Your task to perform on an android device: Show me the alarms in the clock app Image 0: 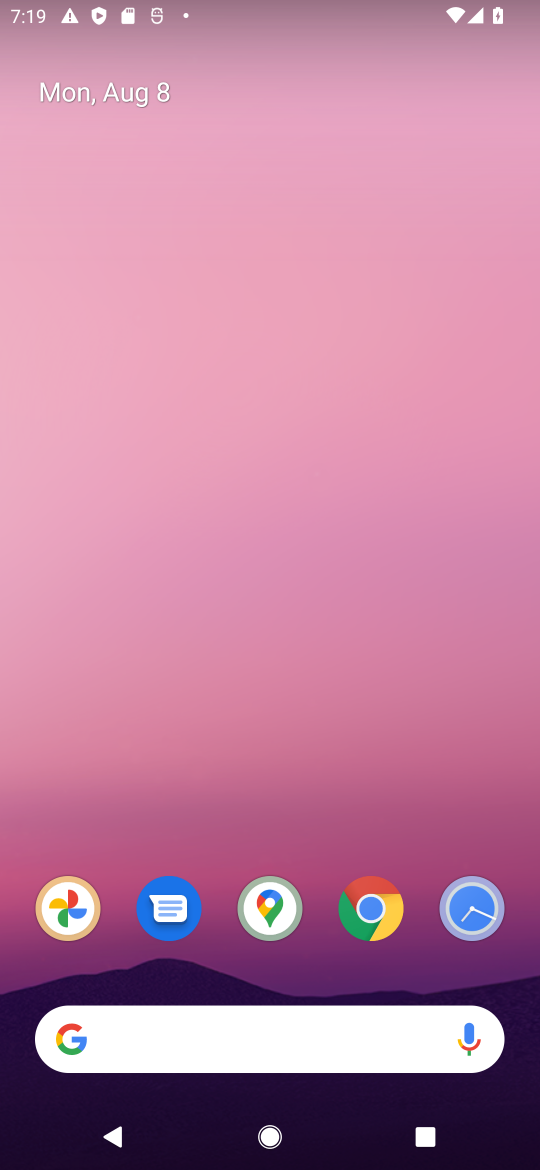
Step 0: click (461, 891)
Your task to perform on an android device: Show me the alarms in the clock app Image 1: 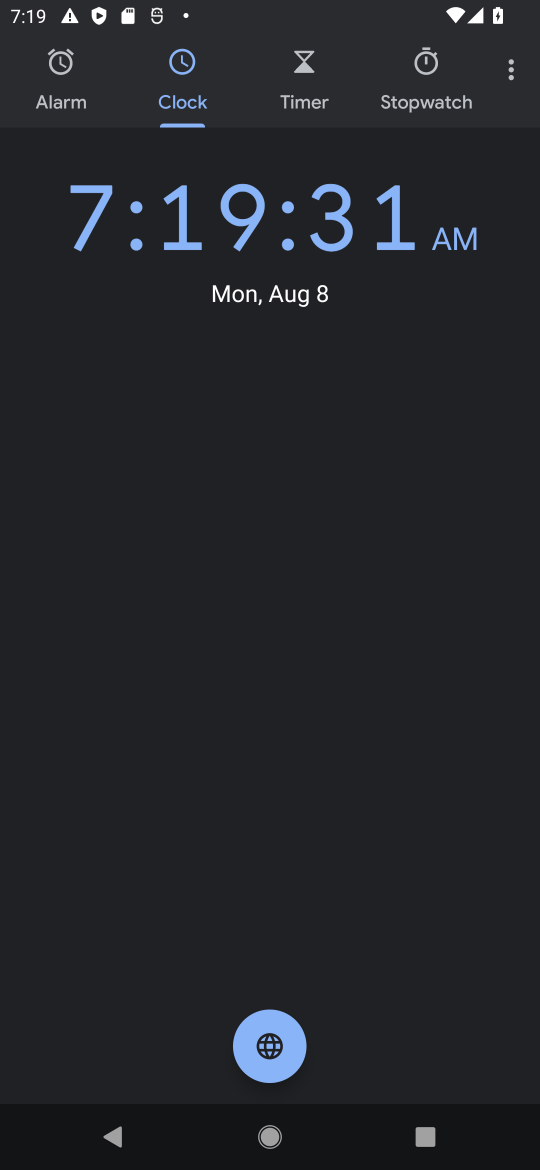
Step 1: click (38, 56)
Your task to perform on an android device: Show me the alarms in the clock app Image 2: 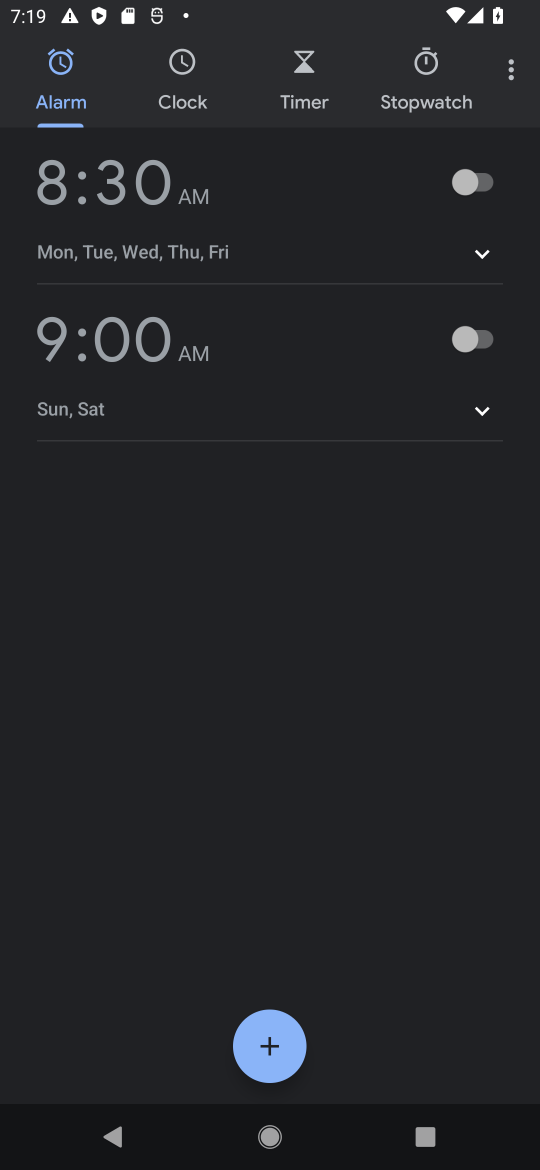
Step 2: task complete